Your task to perform on an android device: turn on data saver in the chrome app Image 0: 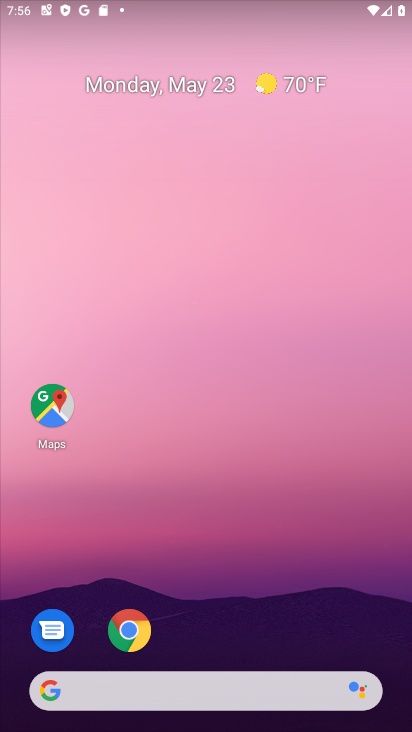
Step 0: click (129, 632)
Your task to perform on an android device: turn on data saver in the chrome app Image 1: 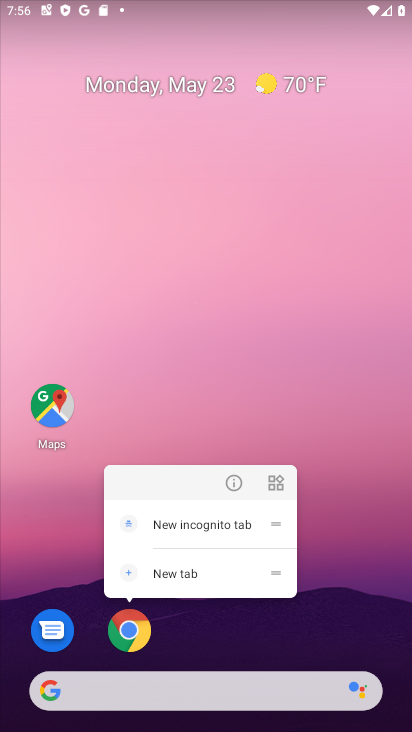
Step 1: click (129, 632)
Your task to perform on an android device: turn on data saver in the chrome app Image 2: 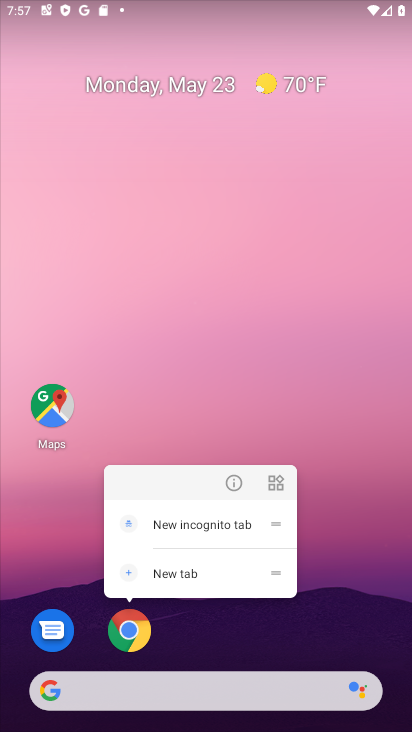
Step 2: click (365, 641)
Your task to perform on an android device: turn on data saver in the chrome app Image 3: 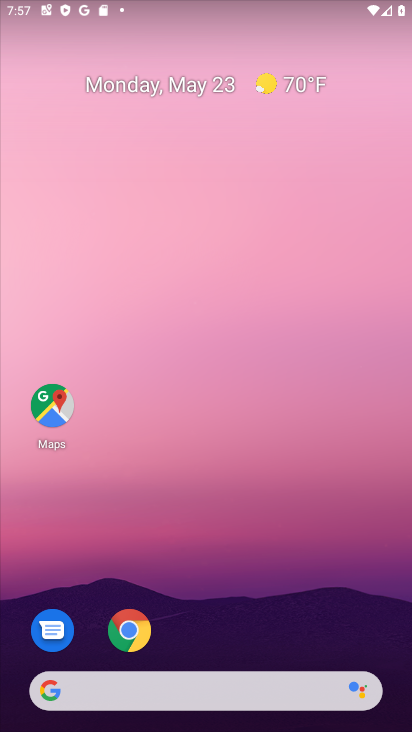
Step 3: drag from (359, 634) to (392, 127)
Your task to perform on an android device: turn on data saver in the chrome app Image 4: 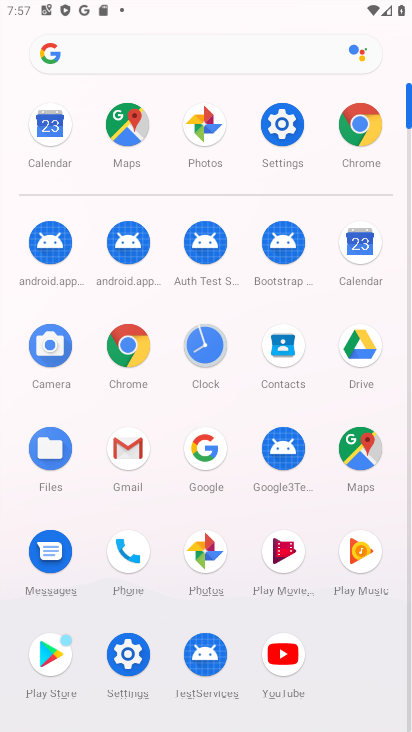
Step 4: click (132, 350)
Your task to perform on an android device: turn on data saver in the chrome app Image 5: 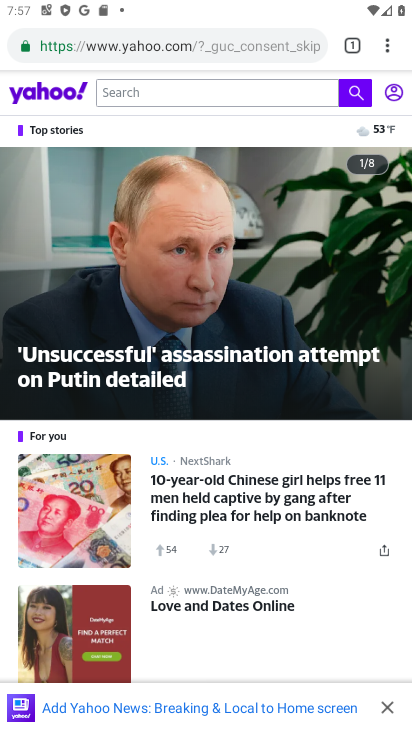
Step 5: click (390, 43)
Your task to perform on an android device: turn on data saver in the chrome app Image 6: 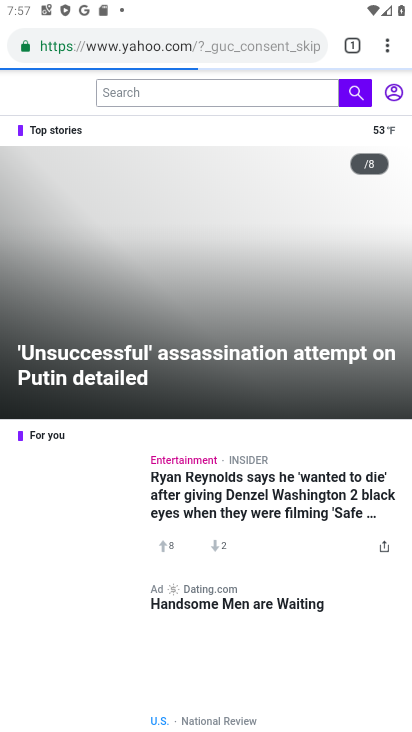
Step 6: drag from (382, 36) to (239, 516)
Your task to perform on an android device: turn on data saver in the chrome app Image 7: 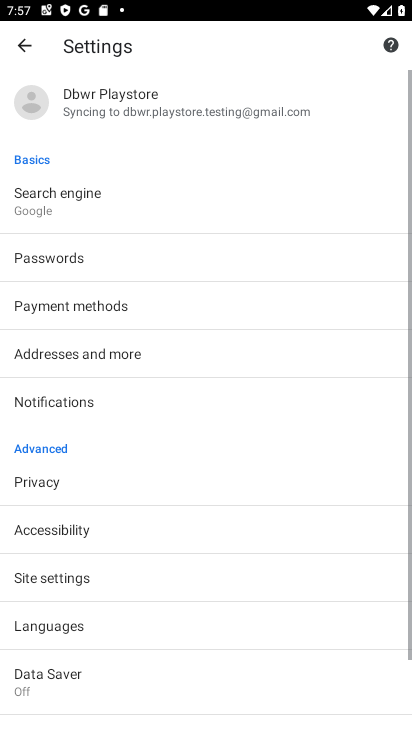
Step 7: drag from (162, 651) to (241, 264)
Your task to perform on an android device: turn on data saver in the chrome app Image 8: 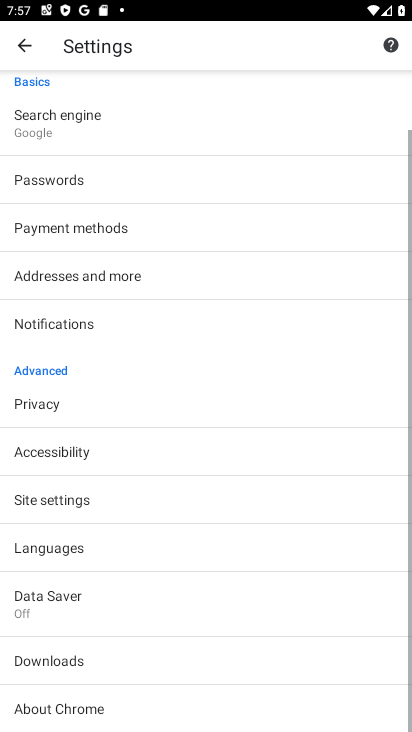
Step 8: click (45, 610)
Your task to perform on an android device: turn on data saver in the chrome app Image 9: 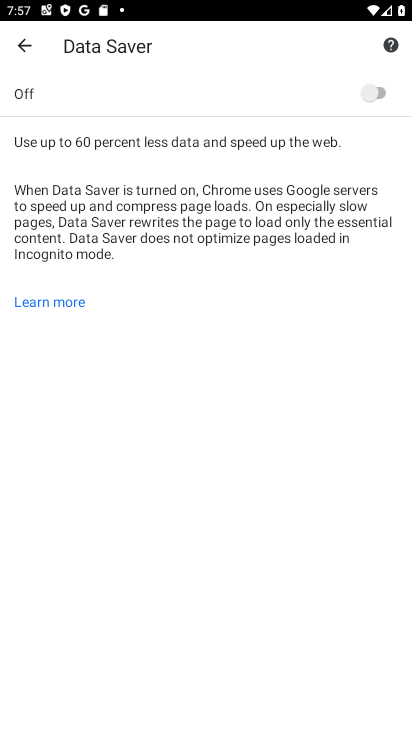
Step 9: click (382, 97)
Your task to perform on an android device: turn on data saver in the chrome app Image 10: 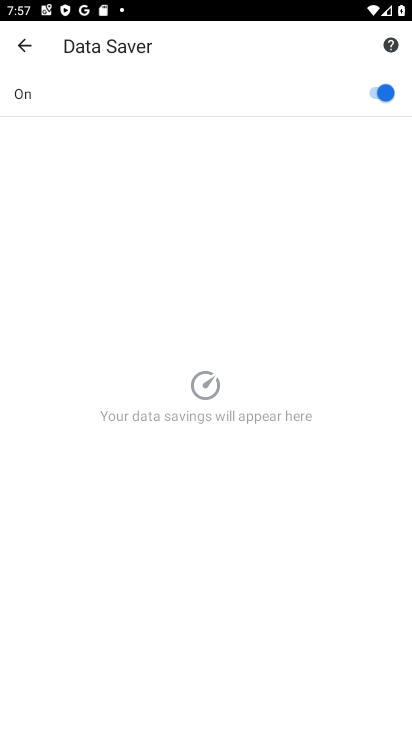
Step 10: task complete